Your task to perform on an android device: Open Yahoo.com Image 0: 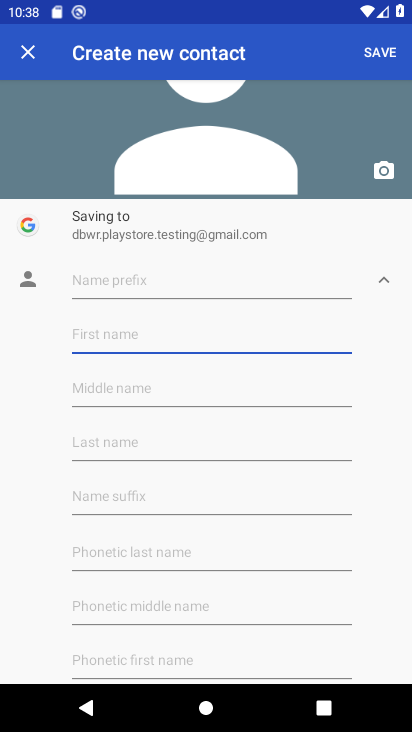
Step 0: press home button
Your task to perform on an android device: Open Yahoo.com Image 1: 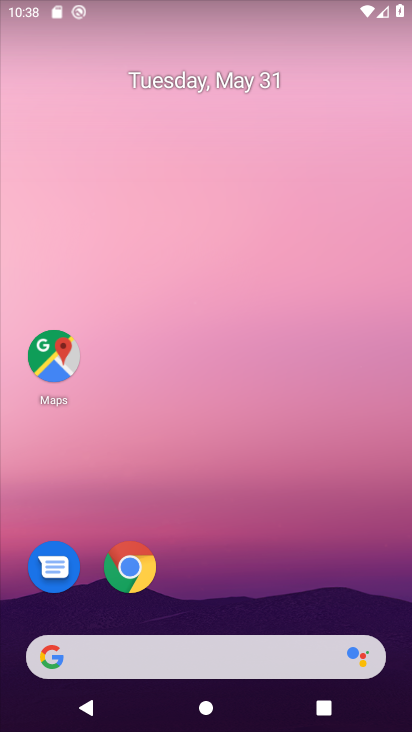
Step 1: click (120, 577)
Your task to perform on an android device: Open Yahoo.com Image 2: 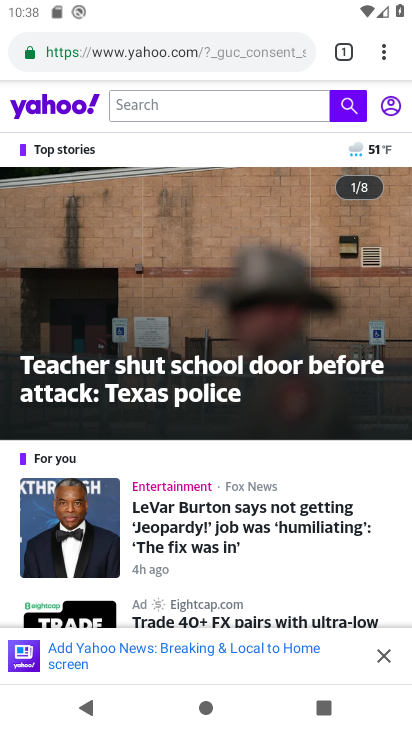
Step 2: task complete